Your task to perform on an android device: toggle improve location accuracy Image 0: 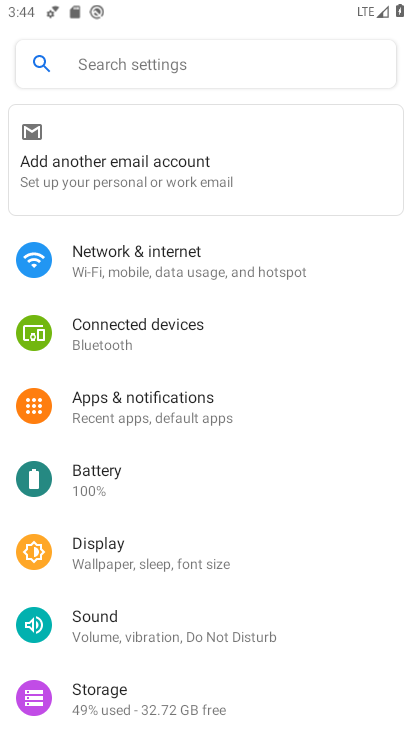
Step 0: drag from (201, 645) to (234, 325)
Your task to perform on an android device: toggle improve location accuracy Image 1: 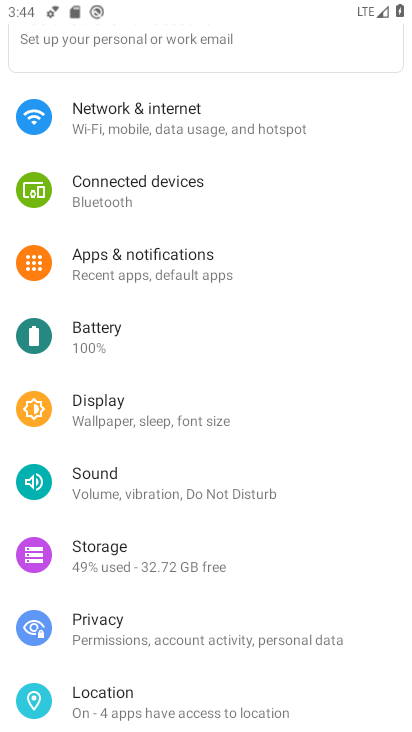
Step 1: click (145, 680)
Your task to perform on an android device: toggle improve location accuracy Image 2: 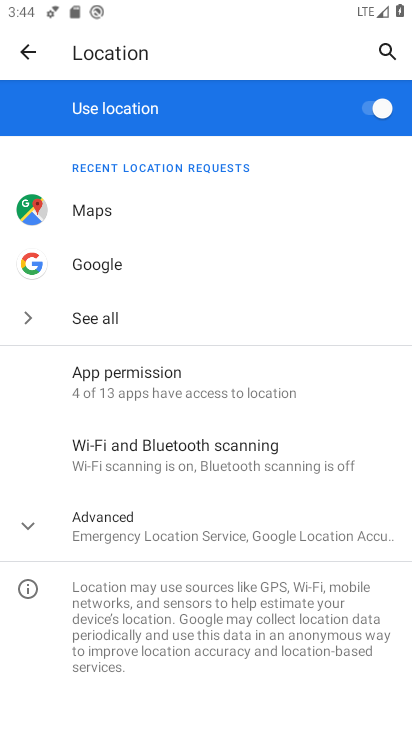
Step 2: click (177, 532)
Your task to perform on an android device: toggle improve location accuracy Image 3: 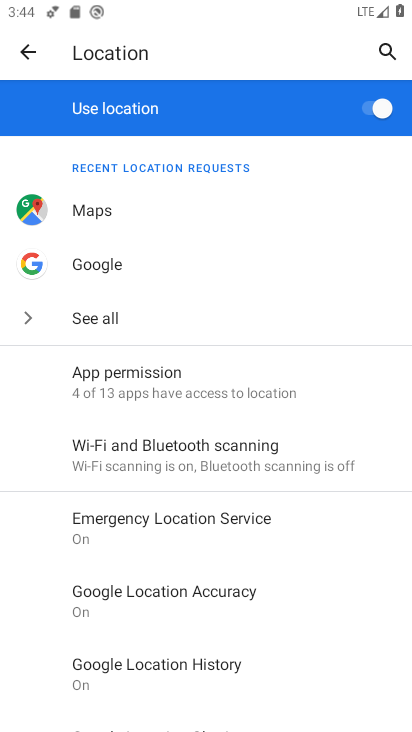
Step 3: click (223, 607)
Your task to perform on an android device: toggle improve location accuracy Image 4: 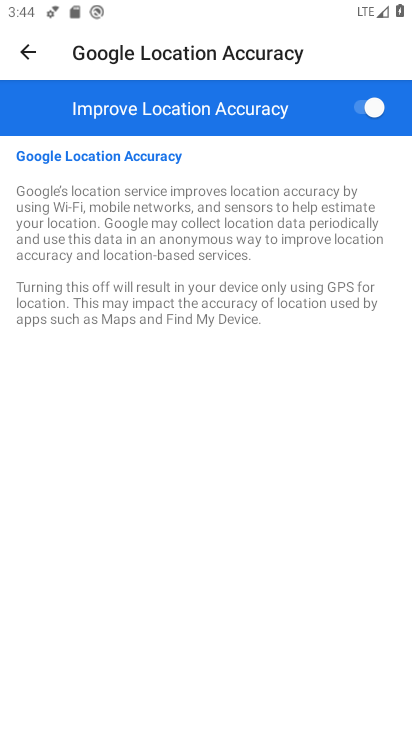
Step 4: click (355, 111)
Your task to perform on an android device: toggle improve location accuracy Image 5: 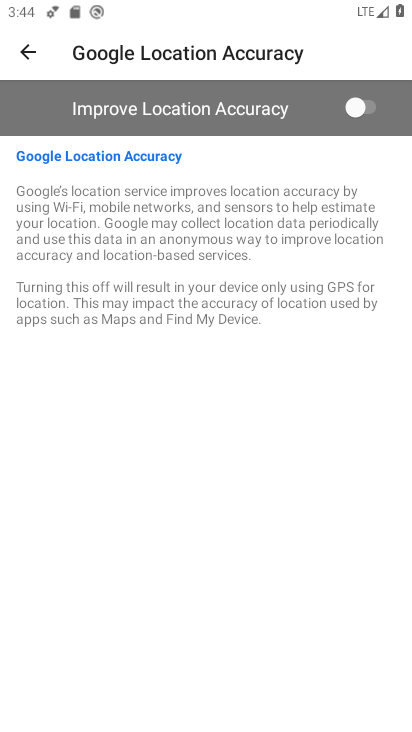
Step 5: task complete